Your task to perform on an android device: What is the news today? Image 0: 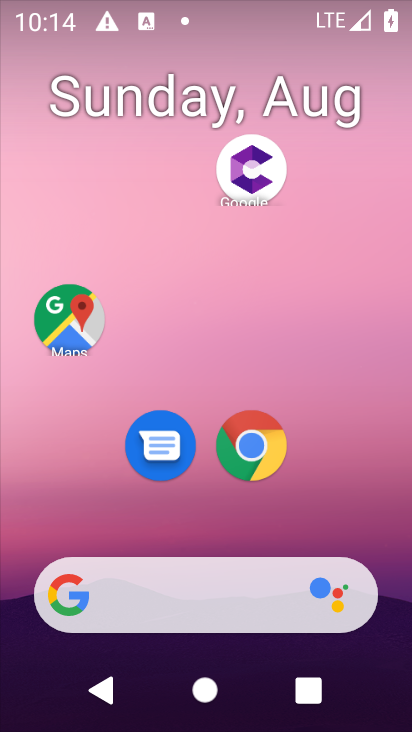
Step 0: press home button
Your task to perform on an android device: What is the news today? Image 1: 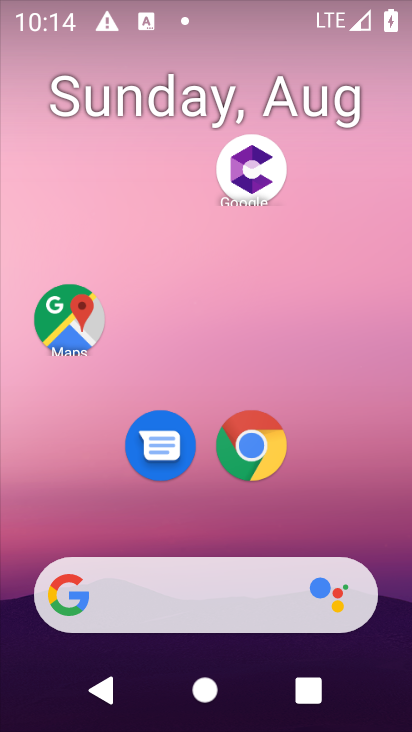
Step 1: task complete